Your task to perform on an android device: Play the last video I watched on Youtube Image 0: 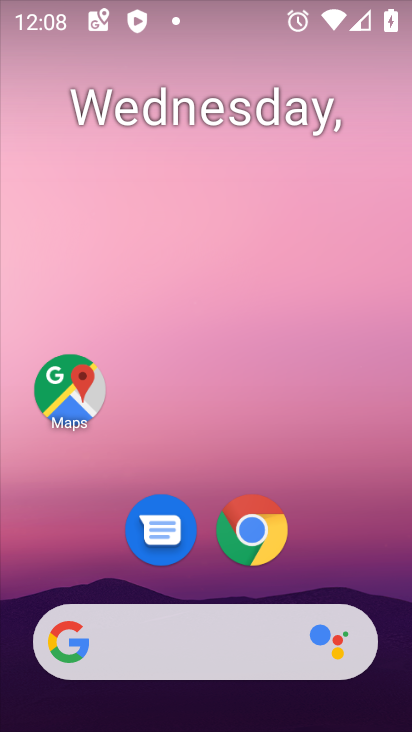
Step 0: drag from (227, 589) to (289, 256)
Your task to perform on an android device: Play the last video I watched on Youtube Image 1: 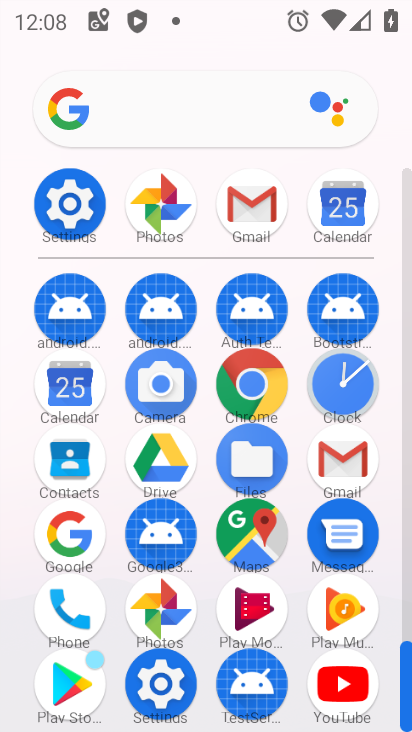
Step 1: click (343, 688)
Your task to perform on an android device: Play the last video I watched on Youtube Image 2: 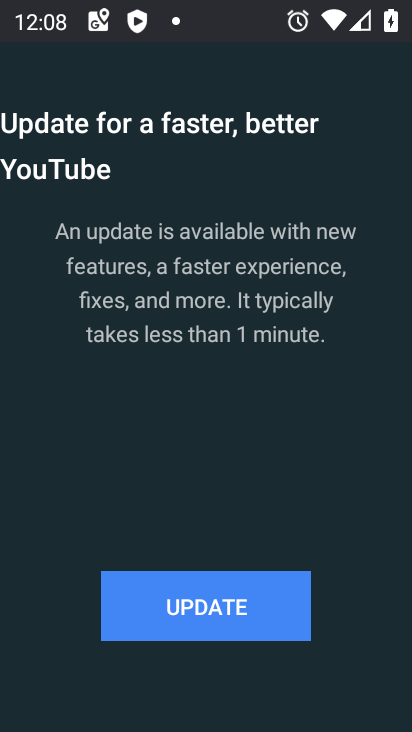
Step 2: click (213, 619)
Your task to perform on an android device: Play the last video I watched on Youtube Image 3: 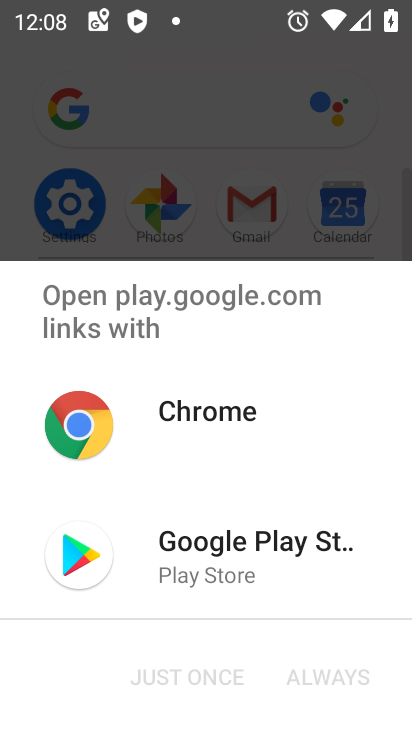
Step 3: click (191, 562)
Your task to perform on an android device: Play the last video I watched on Youtube Image 4: 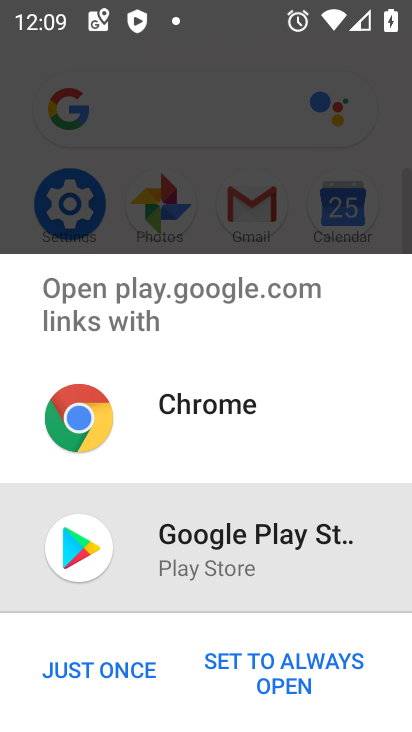
Step 4: click (102, 667)
Your task to perform on an android device: Play the last video I watched on Youtube Image 5: 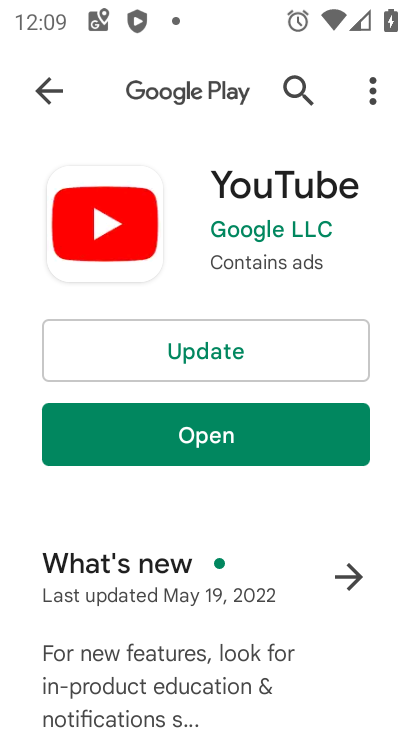
Step 5: click (211, 358)
Your task to perform on an android device: Play the last video I watched on Youtube Image 6: 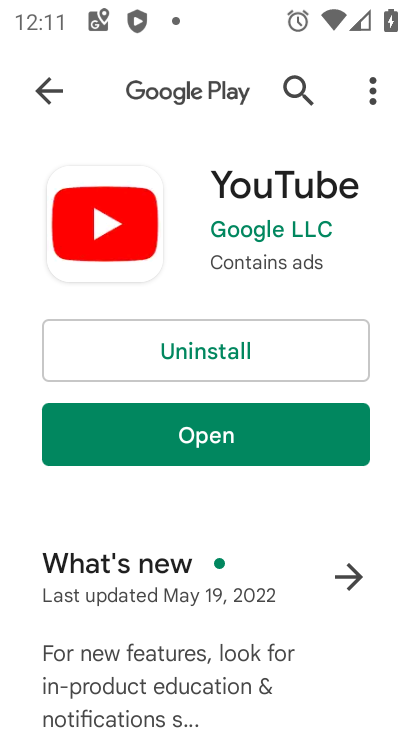
Step 6: click (172, 446)
Your task to perform on an android device: Play the last video I watched on Youtube Image 7: 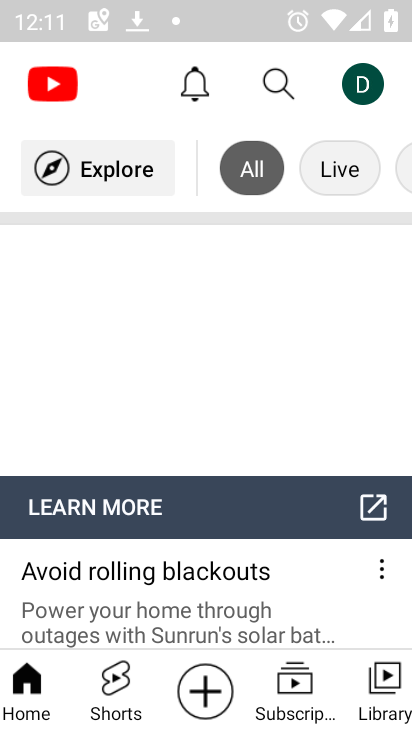
Step 7: click (388, 675)
Your task to perform on an android device: Play the last video I watched on Youtube Image 8: 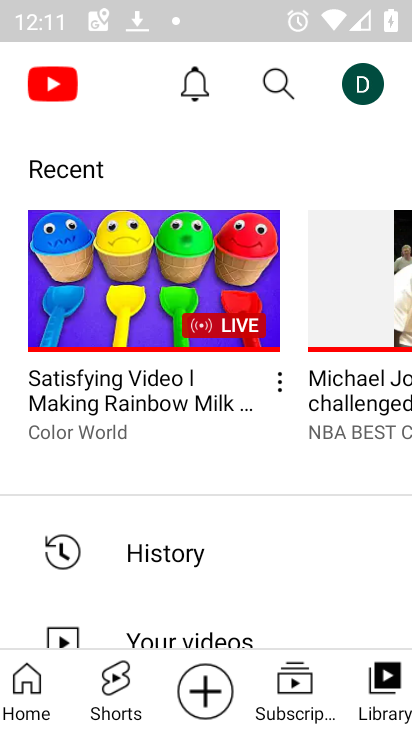
Step 8: click (97, 314)
Your task to perform on an android device: Play the last video I watched on Youtube Image 9: 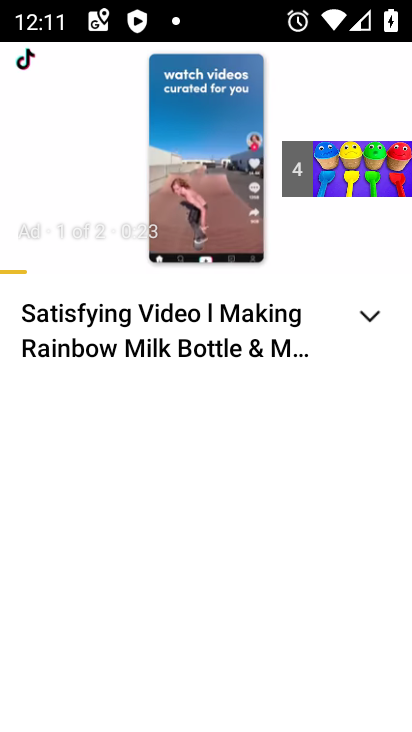
Step 9: click (201, 159)
Your task to perform on an android device: Play the last video I watched on Youtube Image 10: 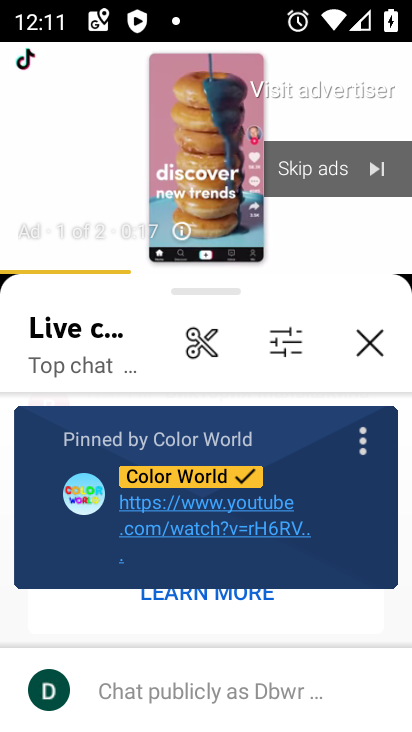
Step 10: click (361, 343)
Your task to perform on an android device: Play the last video I watched on Youtube Image 11: 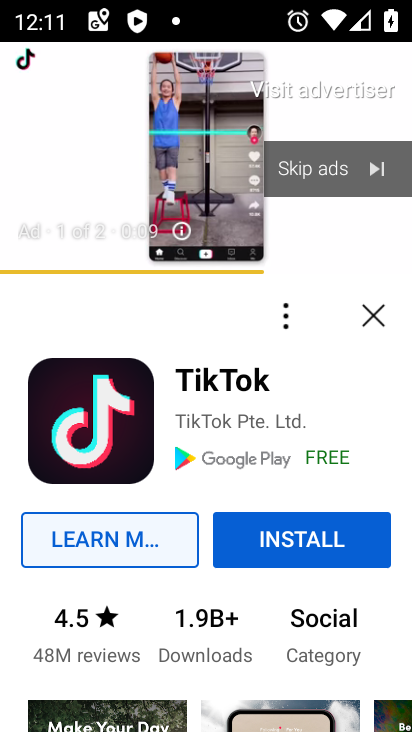
Step 11: click (166, 207)
Your task to perform on an android device: Play the last video I watched on Youtube Image 12: 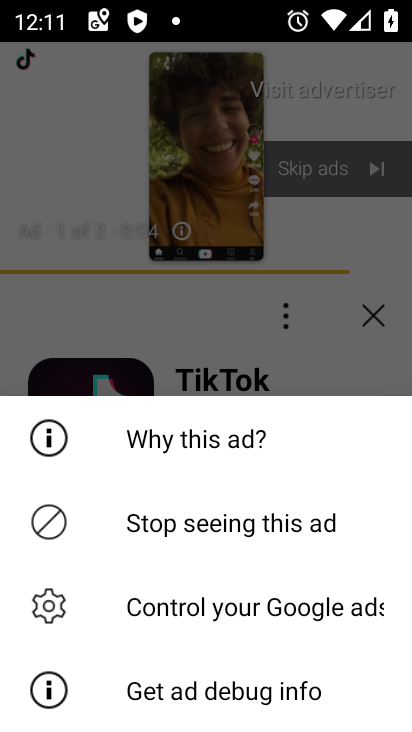
Step 12: click (328, 321)
Your task to perform on an android device: Play the last video I watched on Youtube Image 13: 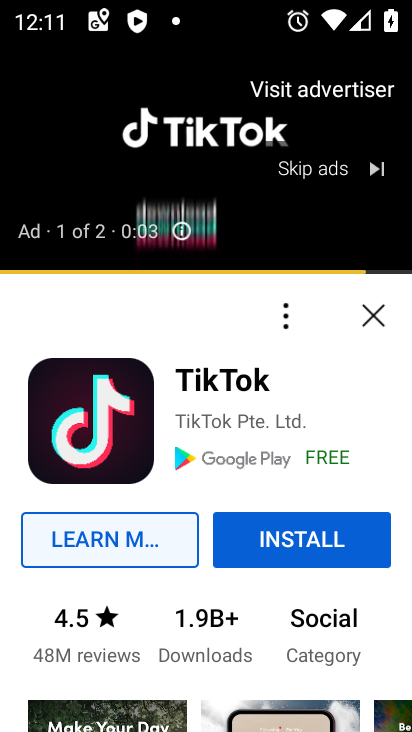
Step 13: click (194, 149)
Your task to perform on an android device: Play the last video I watched on Youtube Image 14: 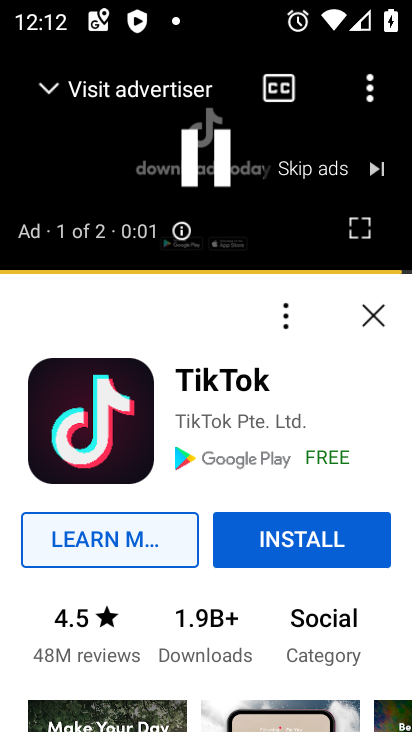
Step 14: click (333, 192)
Your task to perform on an android device: Play the last video I watched on Youtube Image 15: 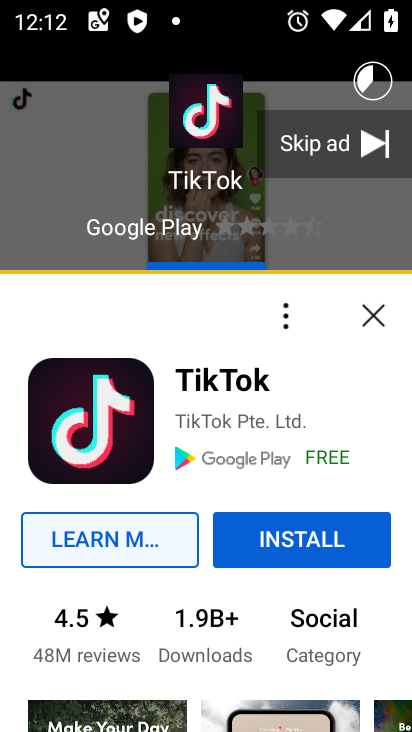
Step 15: task complete